Your task to perform on an android device: Open eBay Image 0: 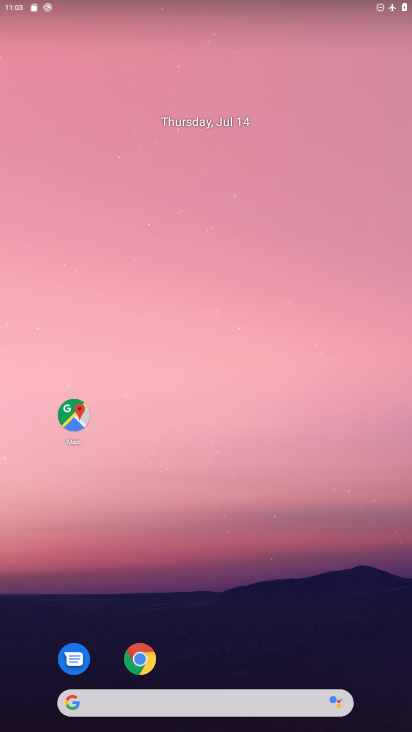
Step 0: drag from (260, 619) to (217, 165)
Your task to perform on an android device: Open eBay Image 1: 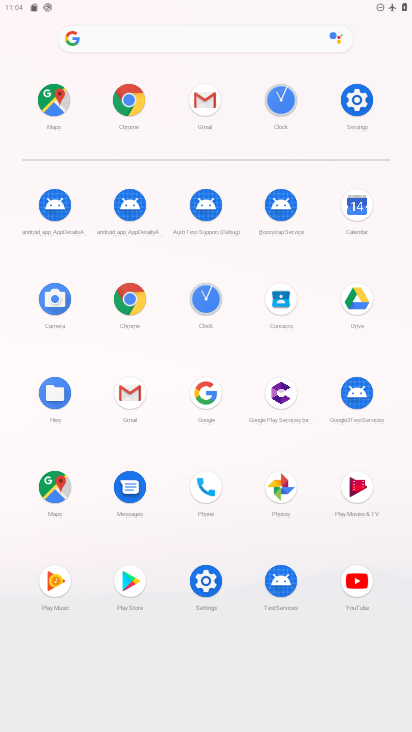
Step 1: click (126, 305)
Your task to perform on an android device: Open eBay Image 2: 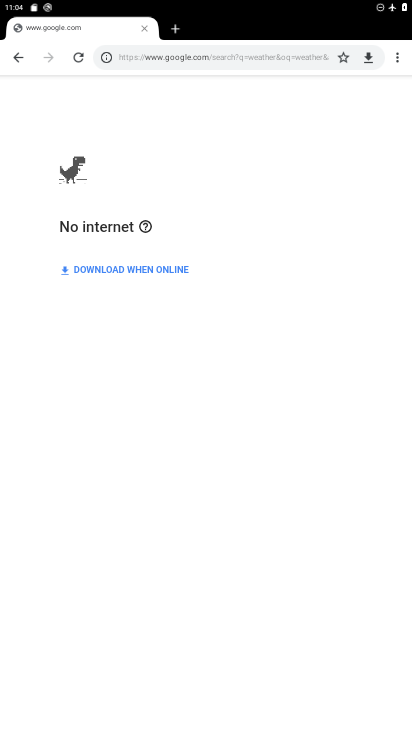
Step 2: click (164, 61)
Your task to perform on an android device: Open eBay Image 3: 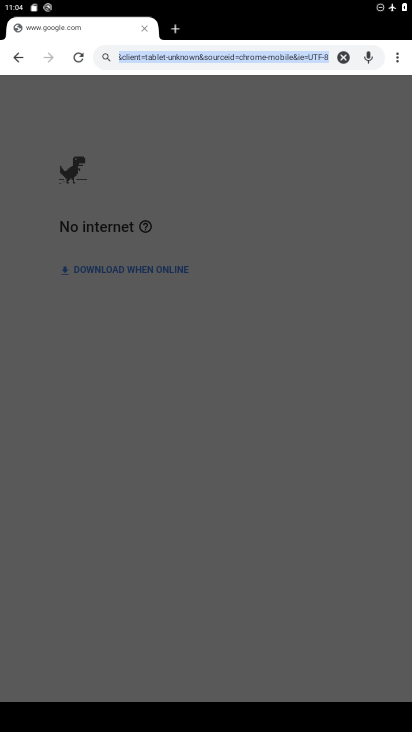
Step 3: type "ebay"
Your task to perform on an android device: Open eBay Image 4: 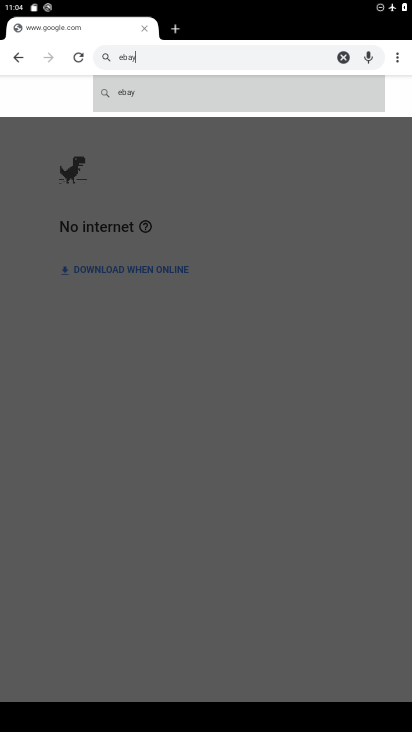
Step 4: click (144, 96)
Your task to perform on an android device: Open eBay Image 5: 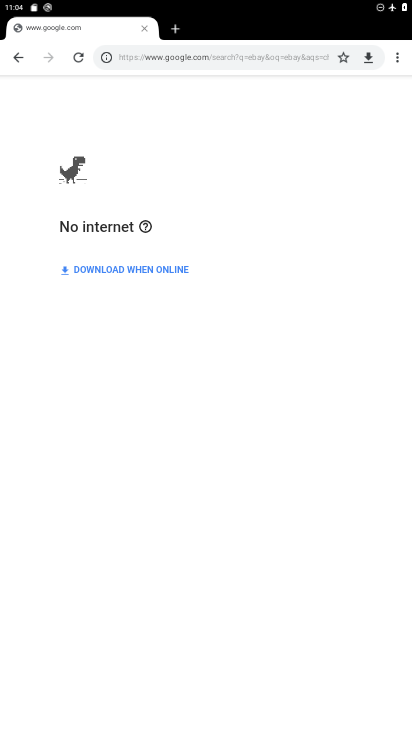
Step 5: task complete